Your task to perform on an android device: Open settings on Google Maps Image 0: 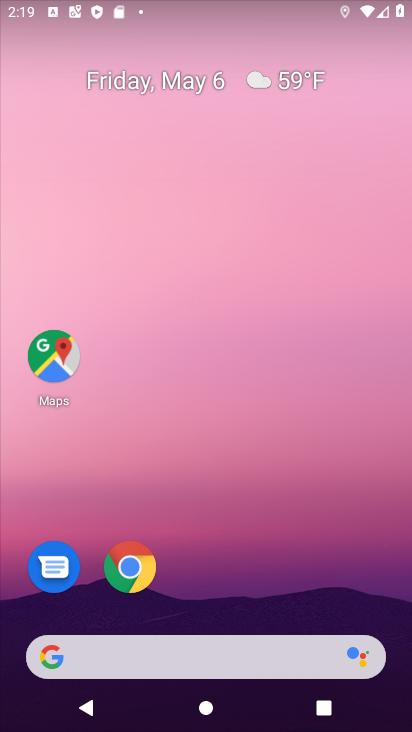
Step 0: click (55, 349)
Your task to perform on an android device: Open settings on Google Maps Image 1: 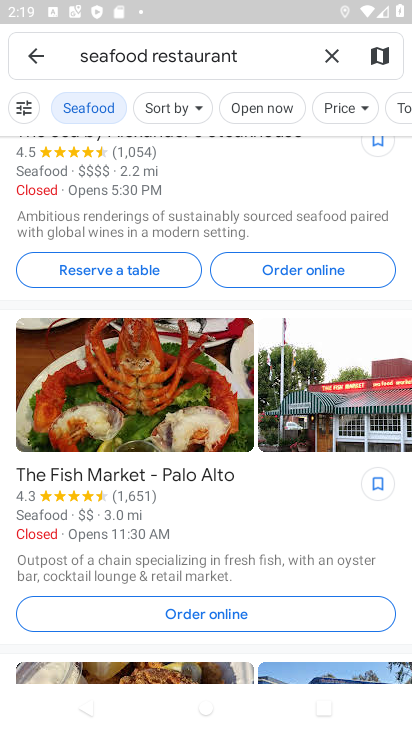
Step 1: click (332, 53)
Your task to perform on an android device: Open settings on Google Maps Image 2: 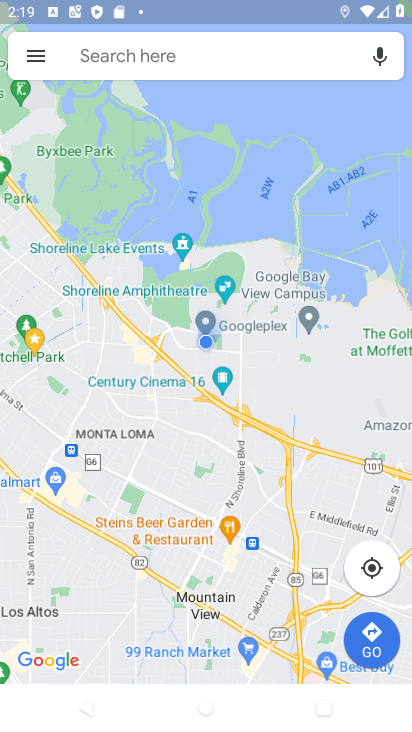
Step 2: click (31, 51)
Your task to perform on an android device: Open settings on Google Maps Image 3: 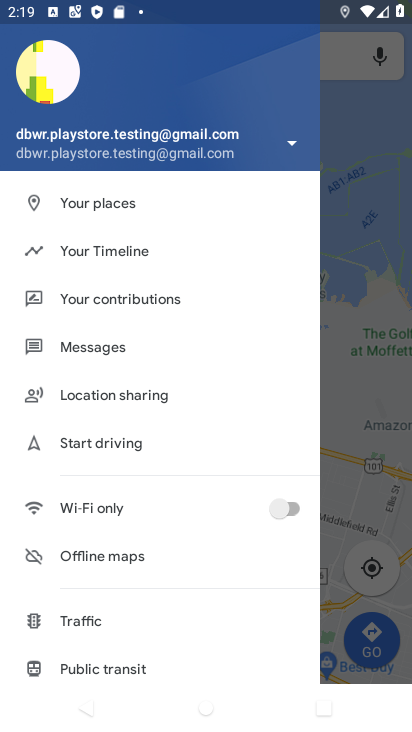
Step 3: drag from (176, 623) to (194, 308)
Your task to perform on an android device: Open settings on Google Maps Image 4: 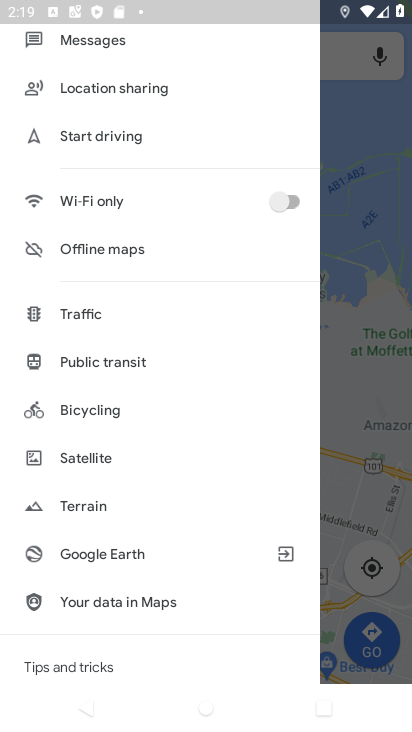
Step 4: drag from (194, 659) to (202, 243)
Your task to perform on an android device: Open settings on Google Maps Image 5: 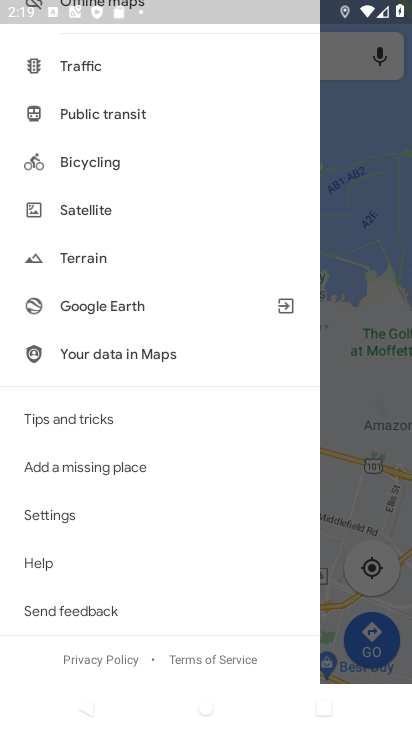
Step 5: click (41, 511)
Your task to perform on an android device: Open settings on Google Maps Image 6: 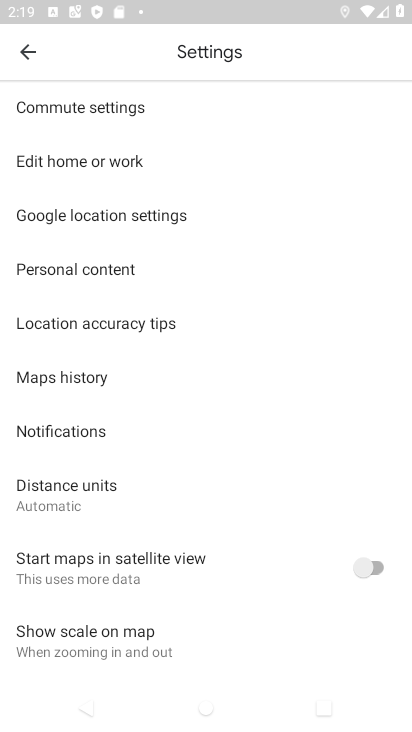
Step 6: task complete